Your task to perform on an android device: read, delete, or share a saved page in the chrome app Image 0: 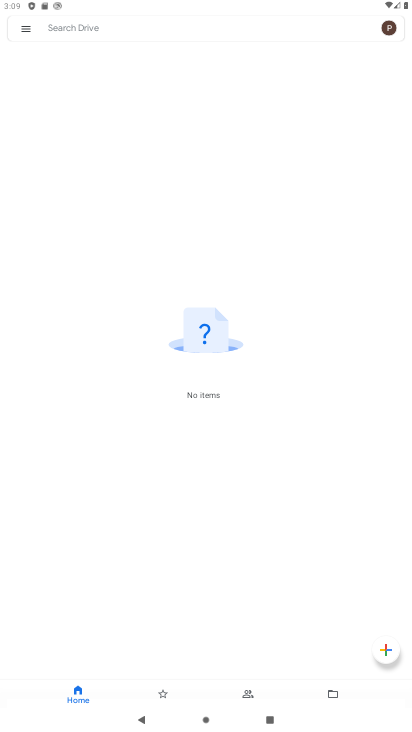
Step 0: press home button
Your task to perform on an android device: read, delete, or share a saved page in the chrome app Image 1: 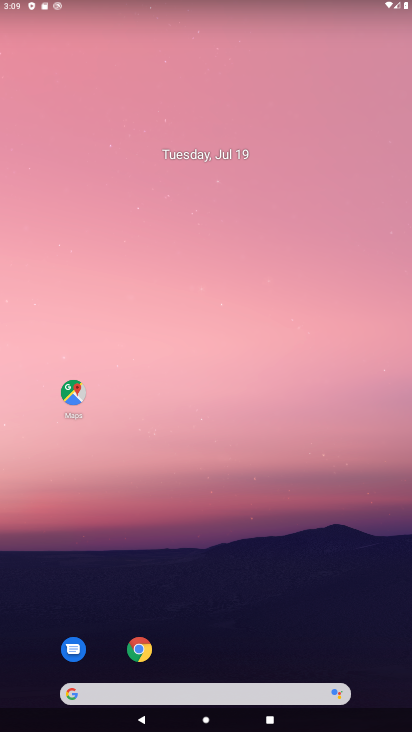
Step 1: click (141, 647)
Your task to perform on an android device: read, delete, or share a saved page in the chrome app Image 2: 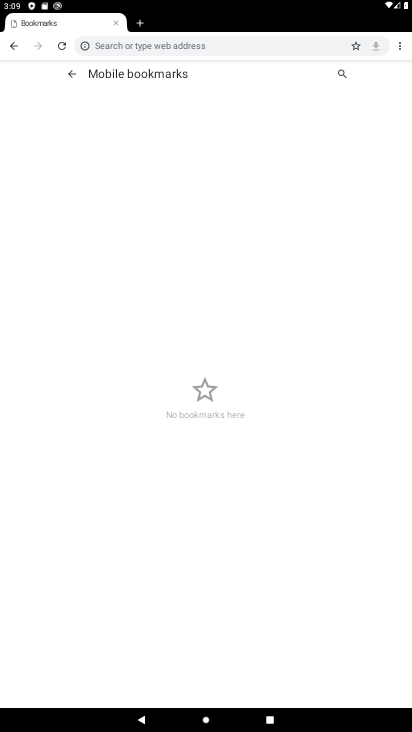
Step 2: click (393, 49)
Your task to perform on an android device: read, delete, or share a saved page in the chrome app Image 3: 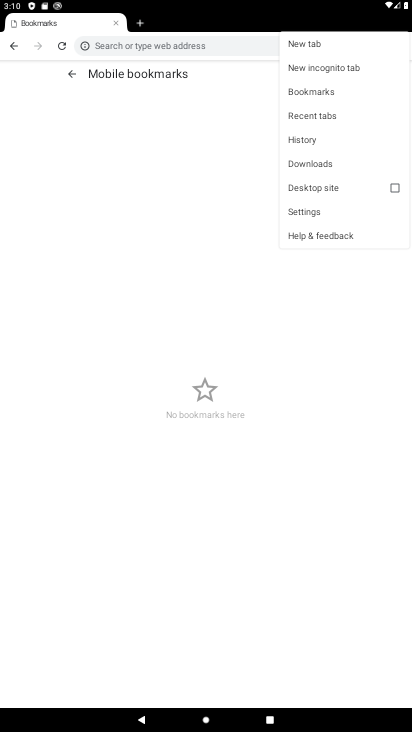
Step 3: click (343, 169)
Your task to perform on an android device: read, delete, or share a saved page in the chrome app Image 4: 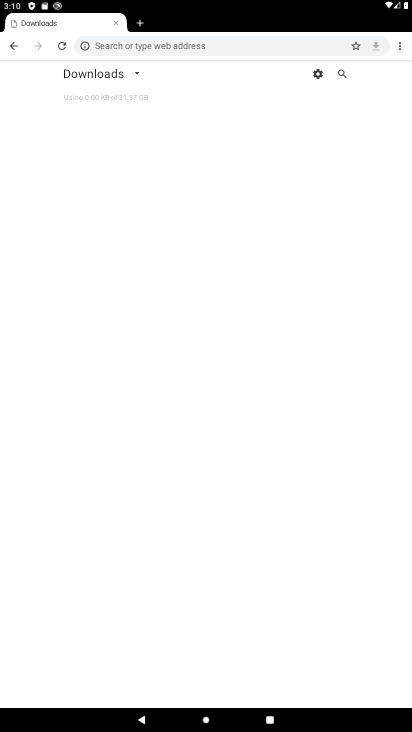
Step 4: task complete